Your task to perform on an android device: toggle translation in the chrome app Image 0: 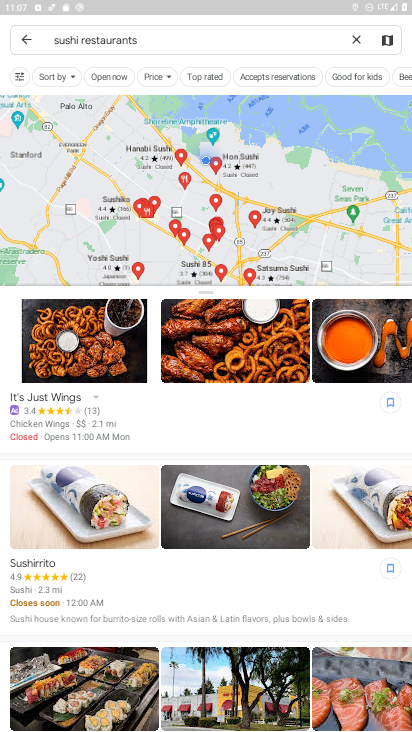
Step 0: press home button
Your task to perform on an android device: toggle translation in the chrome app Image 1: 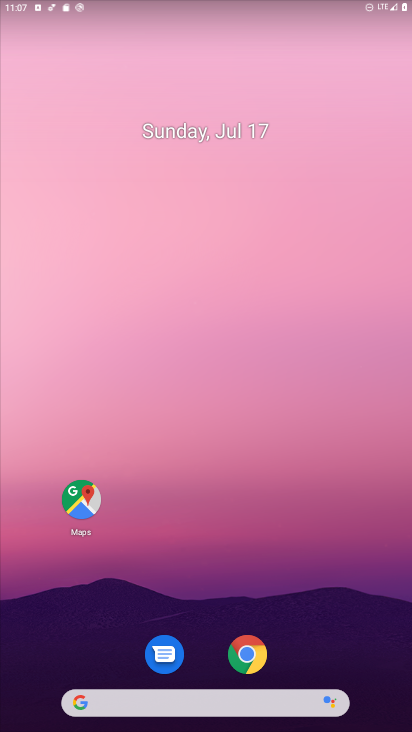
Step 1: click (241, 658)
Your task to perform on an android device: toggle translation in the chrome app Image 2: 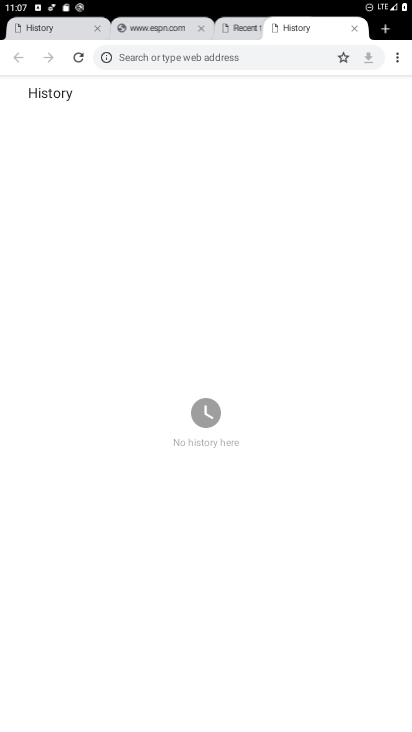
Step 2: click (392, 60)
Your task to perform on an android device: toggle translation in the chrome app Image 3: 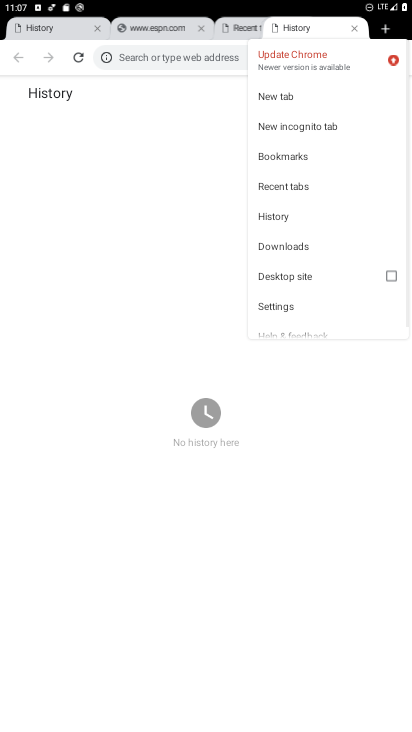
Step 3: click (284, 301)
Your task to perform on an android device: toggle translation in the chrome app Image 4: 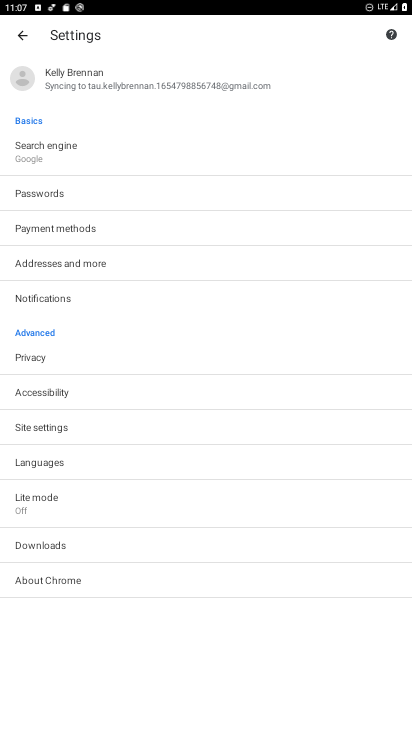
Step 4: click (56, 465)
Your task to perform on an android device: toggle translation in the chrome app Image 5: 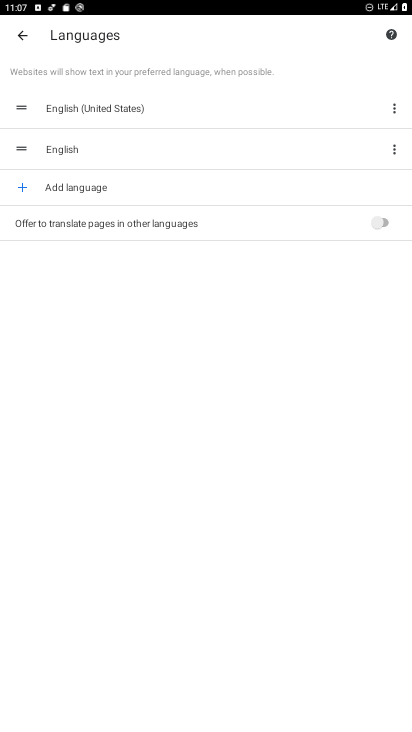
Step 5: click (385, 221)
Your task to perform on an android device: toggle translation in the chrome app Image 6: 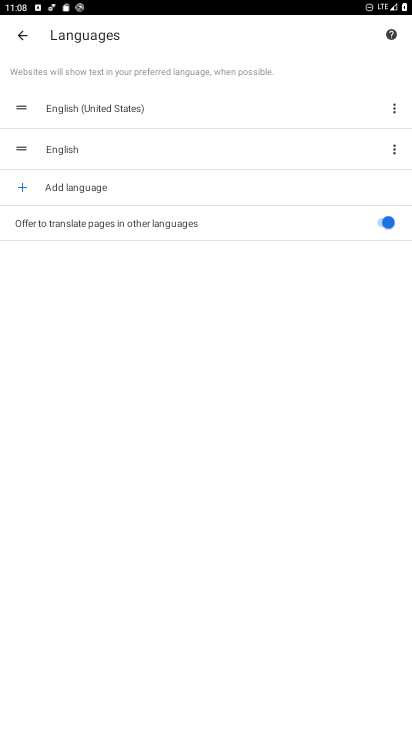
Step 6: task complete